Your task to perform on an android device: Open the map Image 0: 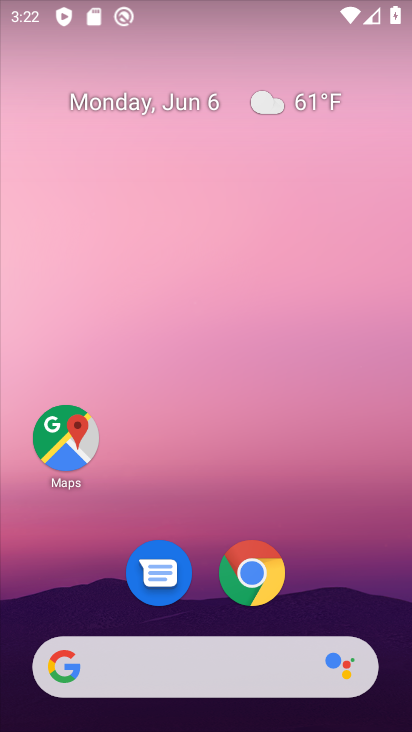
Step 0: drag from (94, 635) to (137, 235)
Your task to perform on an android device: Open the map Image 1: 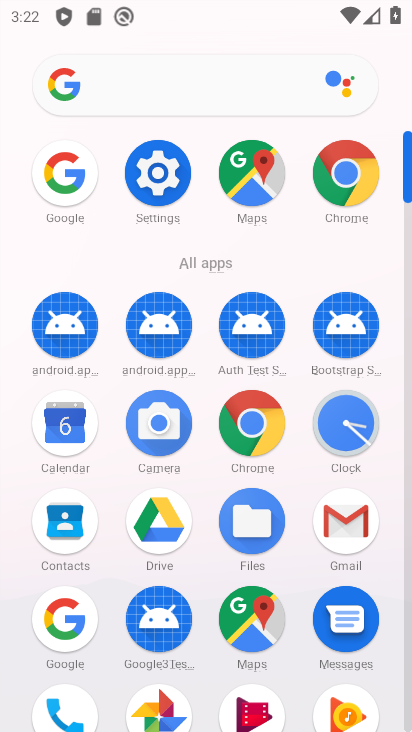
Step 1: click (248, 633)
Your task to perform on an android device: Open the map Image 2: 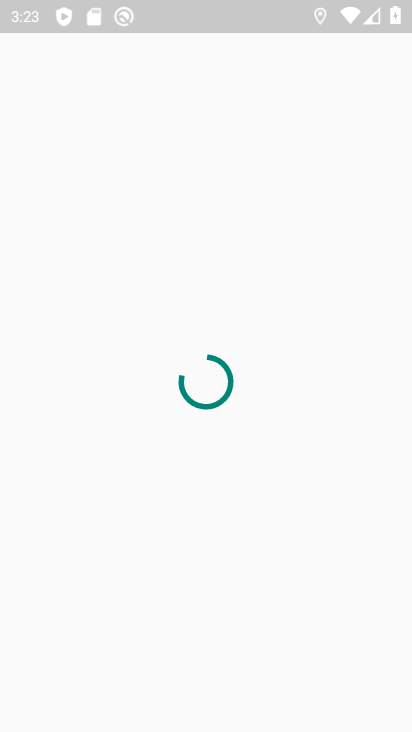
Step 2: task complete